Your task to perform on an android device: Open Google Chrome and click the shortcut for Amazon.com Image 0: 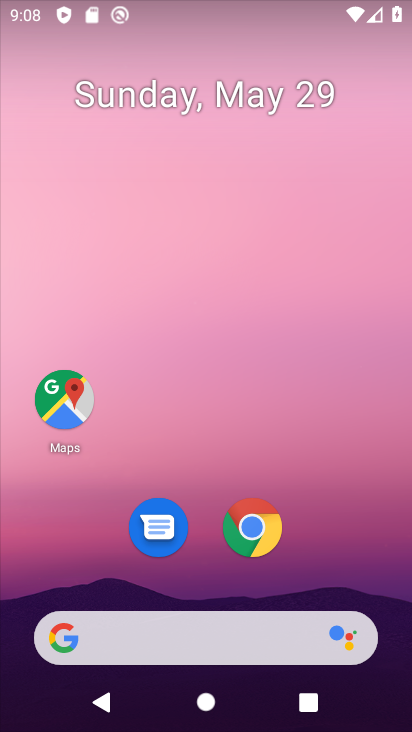
Step 0: click (256, 530)
Your task to perform on an android device: Open Google Chrome and click the shortcut for Amazon.com Image 1: 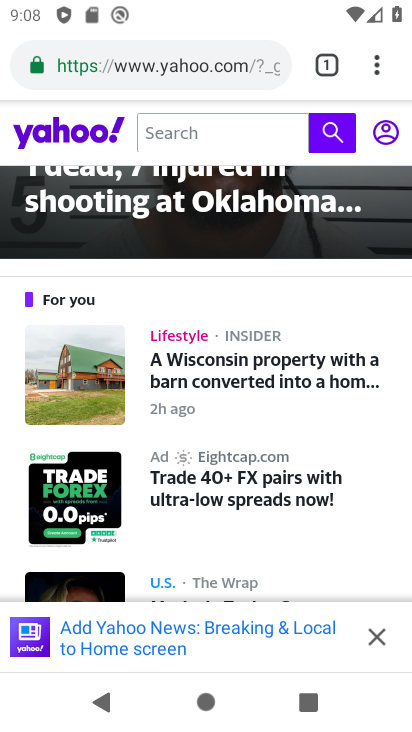
Step 1: drag from (371, 69) to (251, 127)
Your task to perform on an android device: Open Google Chrome and click the shortcut for Amazon.com Image 2: 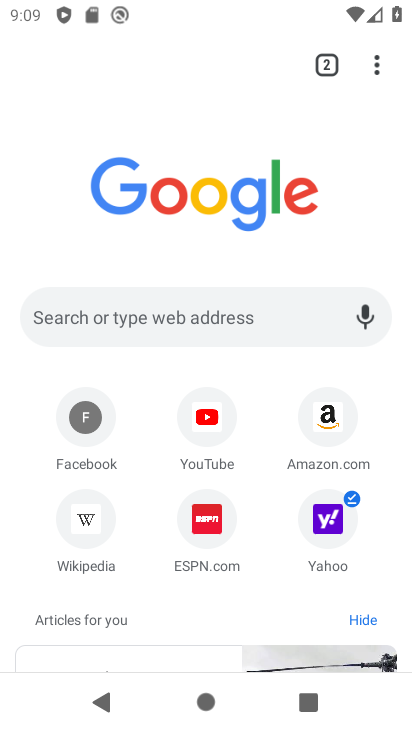
Step 2: click (327, 417)
Your task to perform on an android device: Open Google Chrome and click the shortcut for Amazon.com Image 3: 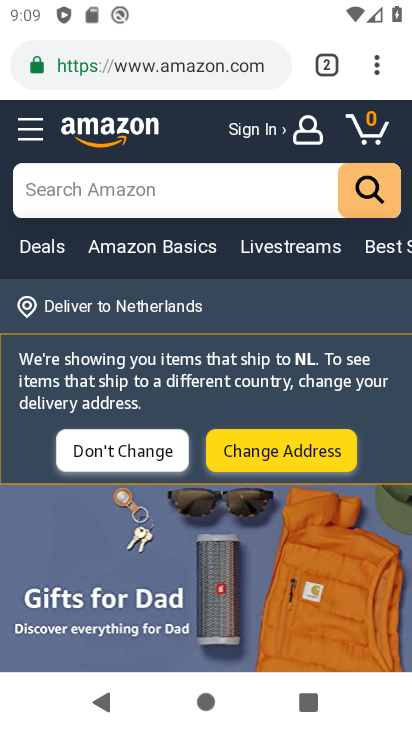
Step 3: task complete